Your task to perform on an android device: open sync settings in chrome Image 0: 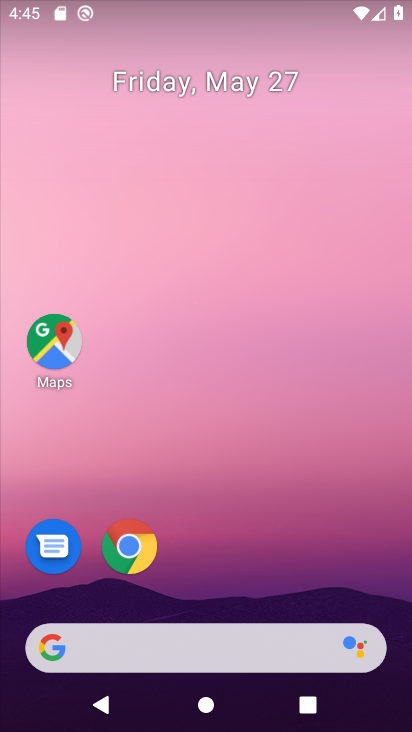
Step 0: drag from (286, 491) to (254, 23)
Your task to perform on an android device: open sync settings in chrome Image 1: 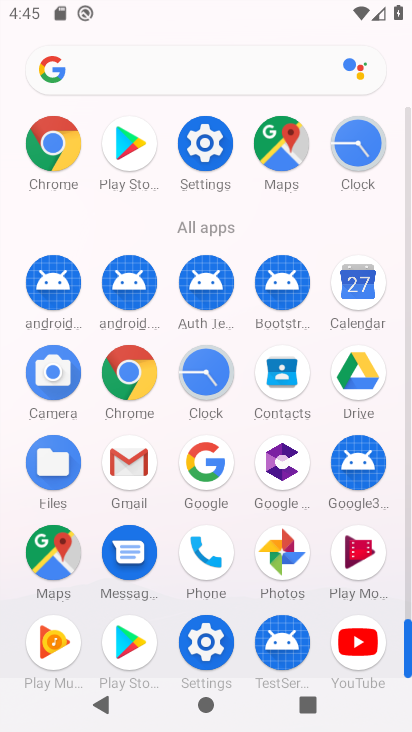
Step 1: drag from (6, 537) to (12, 255)
Your task to perform on an android device: open sync settings in chrome Image 2: 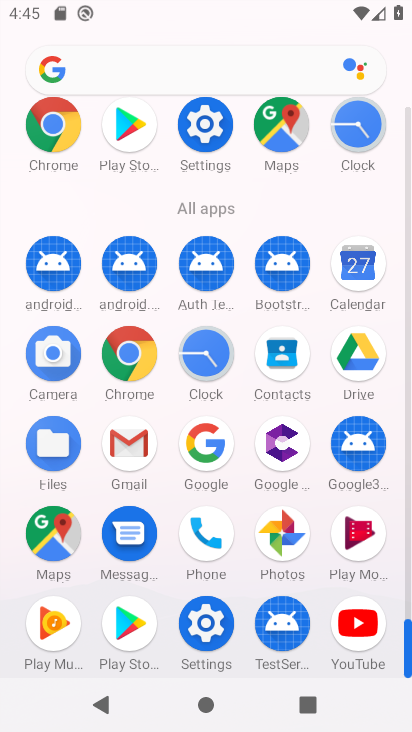
Step 2: click (126, 349)
Your task to perform on an android device: open sync settings in chrome Image 3: 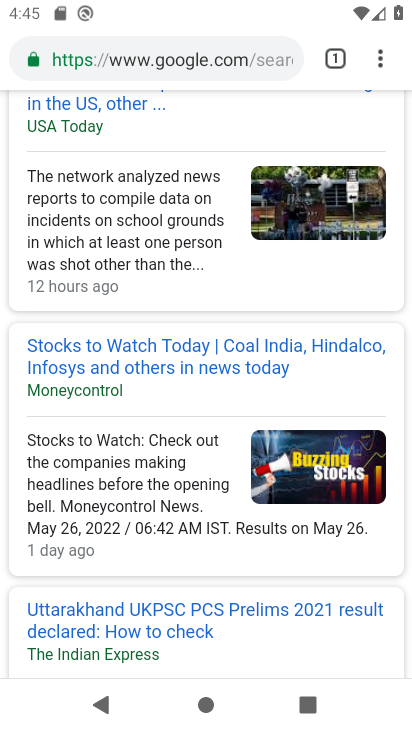
Step 3: drag from (377, 55) to (189, 585)
Your task to perform on an android device: open sync settings in chrome Image 4: 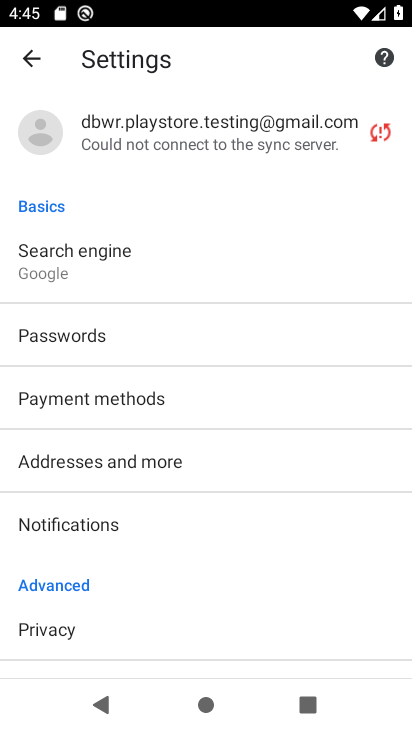
Step 4: click (140, 140)
Your task to perform on an android device: open sync settings in chrome Image 5: 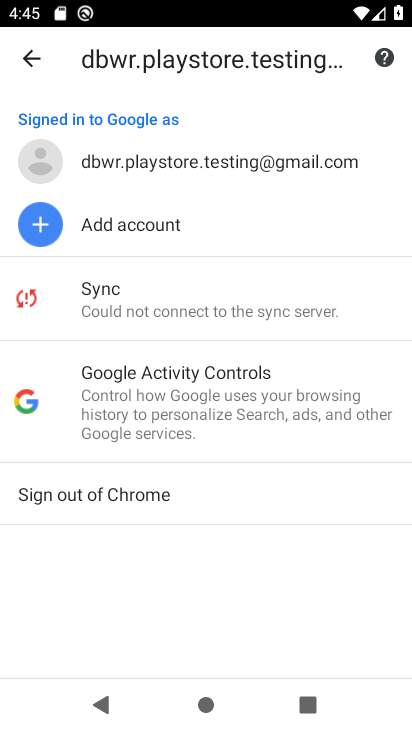
Step 5: click (138, 310)
Your task to perform on an android device: open sync settings in chrome Image 6: 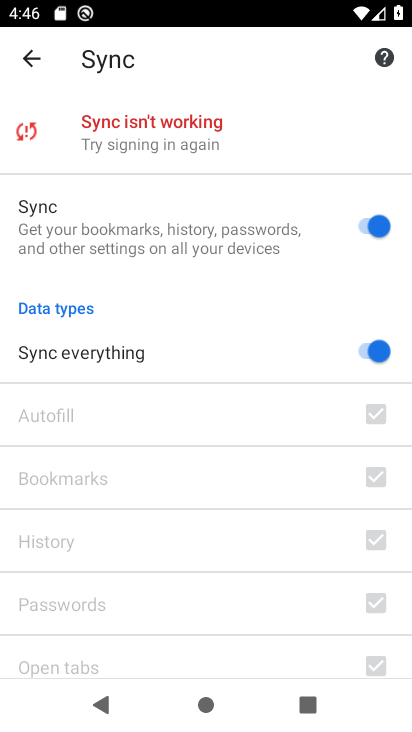
Step 6: task complete